Your task to perform on an android device: turn on notifications settings in the gmail app Image 0: 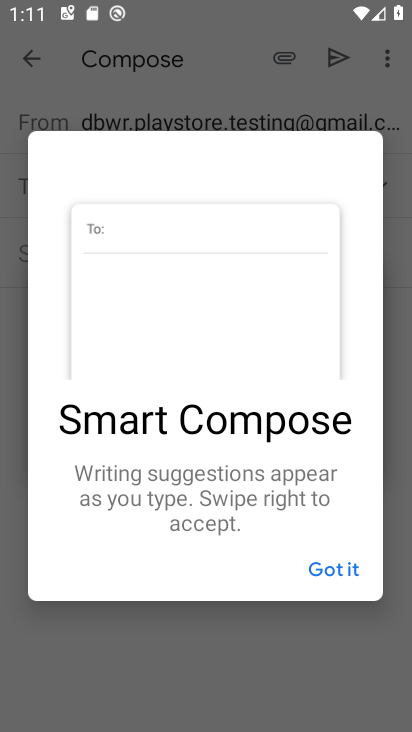
Step 0: press back button
Your task to perform on an android device: turn on notifications settings in the gmail app Image 1: 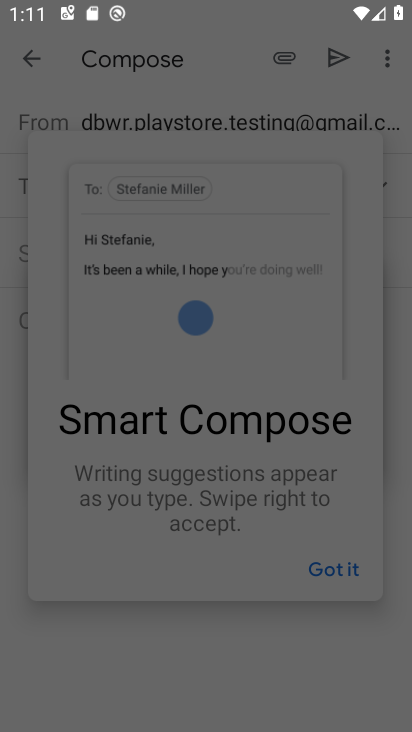
Step 1: press home button
Your task to perform on an android device: turn on notifications settings in the gmail app Image 2: 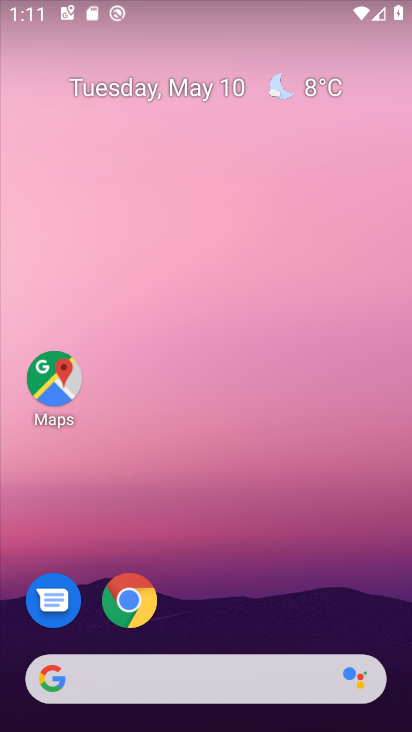
Step 2: drag from (177, 636) to (276, 128)
Your task to perform on an android device: turn on notifications settings in the gmail app Image 3: 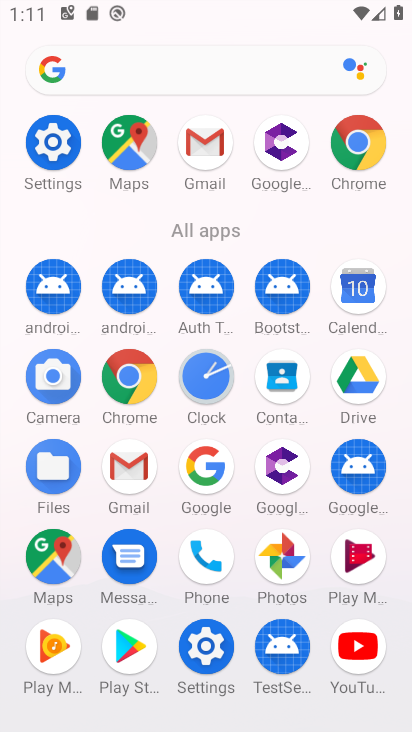
Step 3: click (132, 468)
Your task to perform on an android device: turn on notifications settings in the gmail app Image 4: 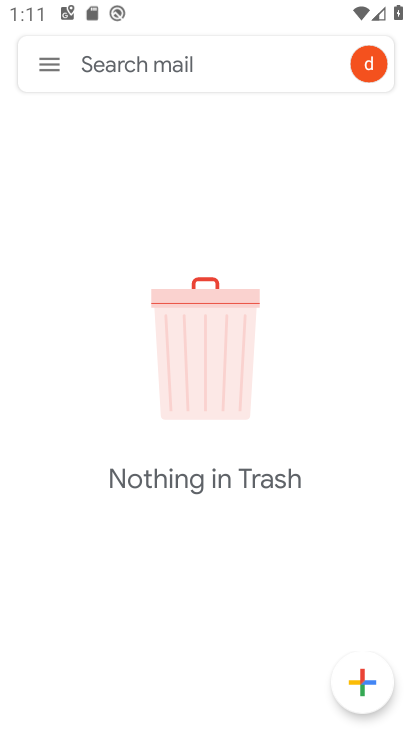
Step 4: click (55, 51)
Your task to perform on an android device: turn on notifications settings in the gmail app Image 5: 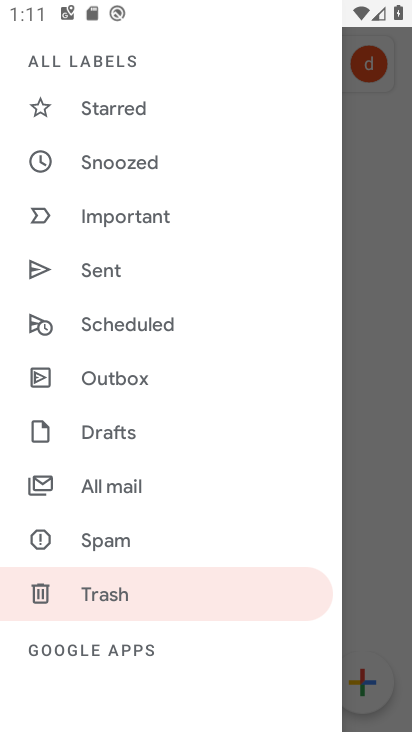
Step 5: drag from (153, 633) to (250, 234)
Your task to perform on an android device: turn on notifications settings in the gmail app Image 6: 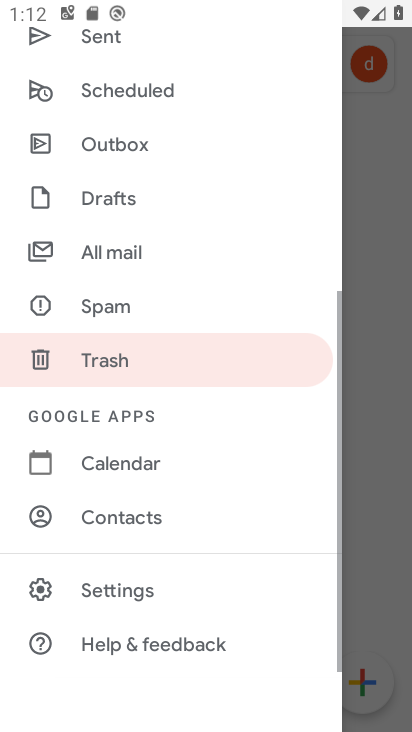
Step 6: click (155, 595)
Your task to perform on an android device: turn on notifications settings in the gmail app Image 7: 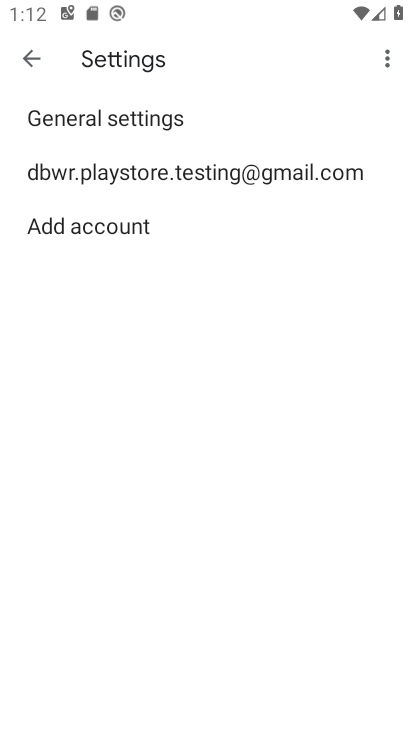
Step 7: click (277, 172)
Your task to perform on an android device: turn on notifications settings in the gmail app Image 8: 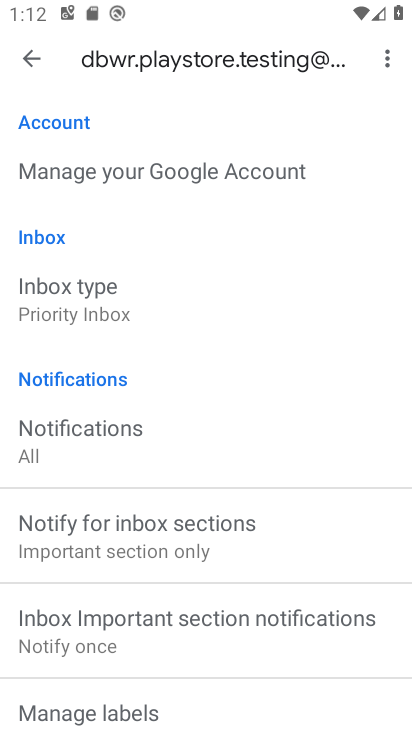
Step 8: drag from (125, 676) to (198, 401)
Your task to perform on an android device: turn on notifications settings in the gmail app Image 9: 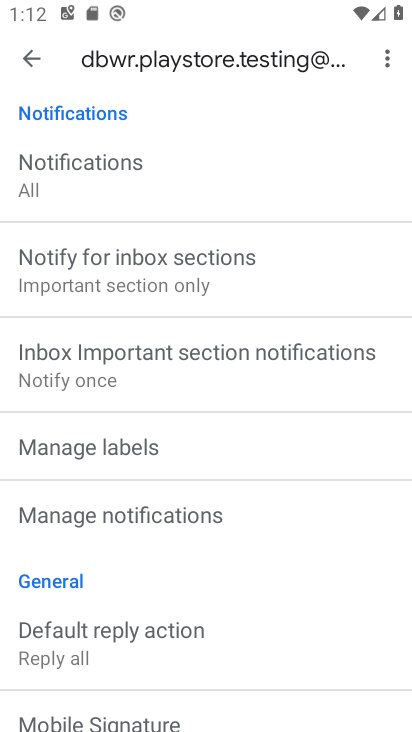
Step 9: click (170, 519)
Your task to perform on an android device: turn on notifications settings in the gmail app Image 10: 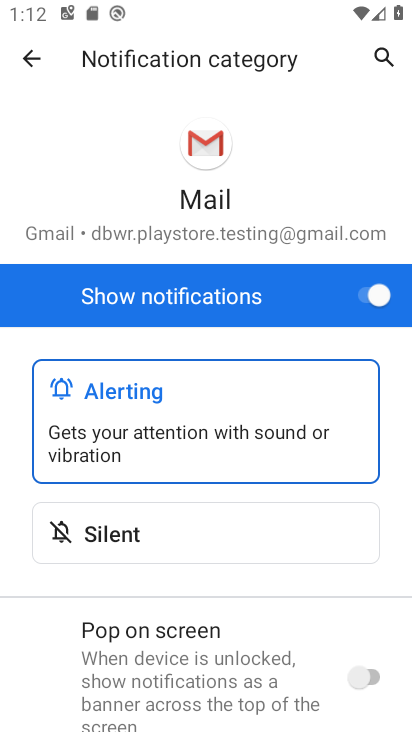
Step 10: task complete